Your task to perform on an android device: create a new album in the google photos Image 0: 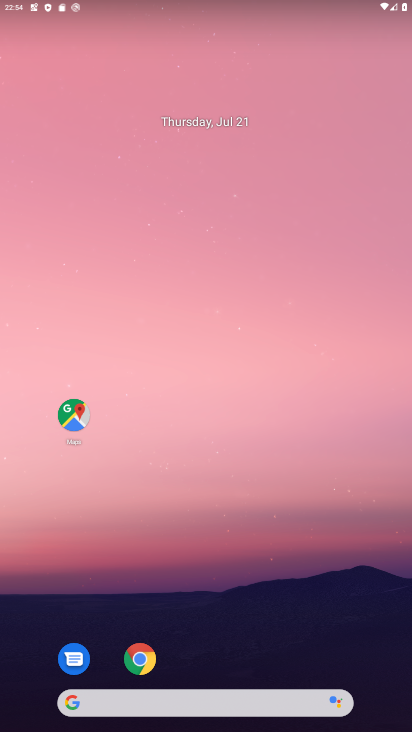
Step 0: drag from (249, 527) to (252, 11)
Your task to perform on an android device: create a new album in the google photos Image 1: 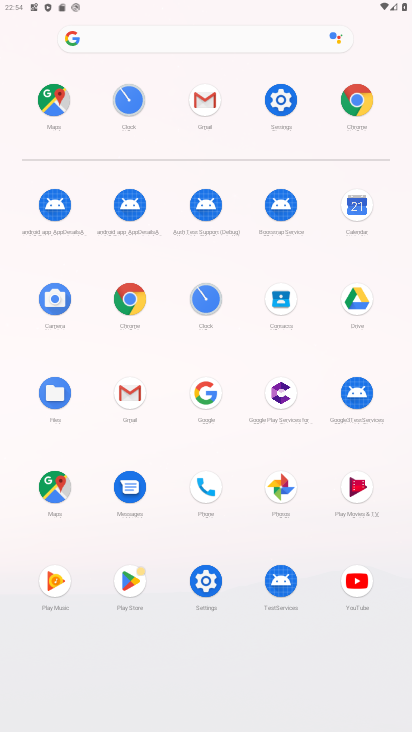
Step 1: click (286, 497)
Your task to perform on an android device: create a new album in the google photos Image 2: 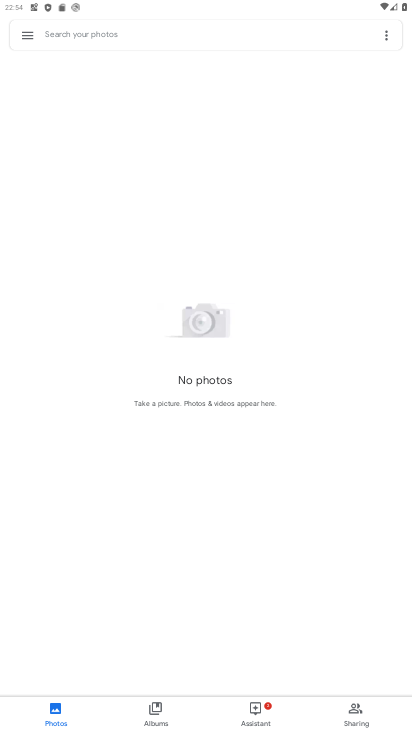
Step 2: click (160, 711)
Your task to perform on an android device: create a new album in the google photos Image 3: 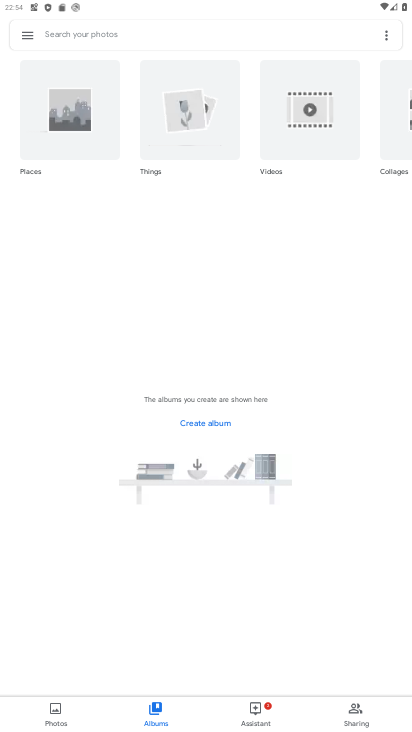
Step 3: click (192, 422)
Your task to perform on an android device: create a new album in the google photos Image 4: 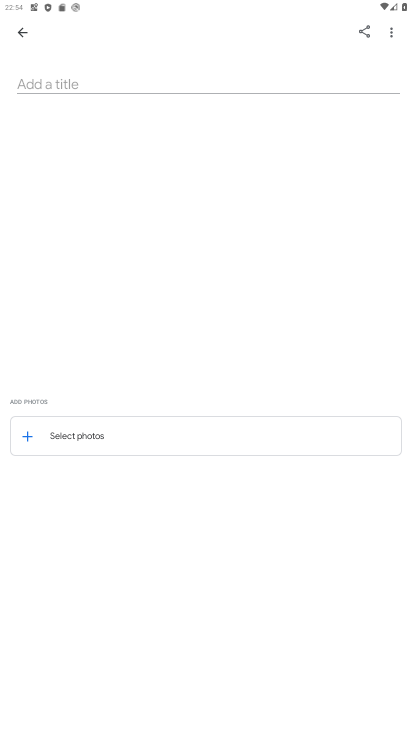
Step 4: click (207, 84)
Your task to perform on an android device: create a new album in the google photos Image 5: 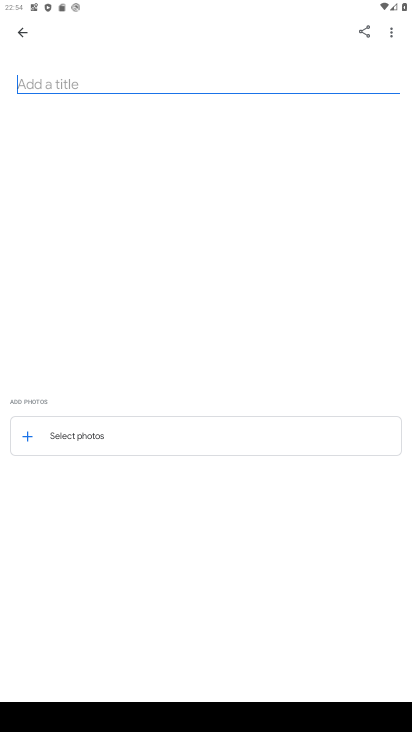
Step 5: type "jok,,"
Your task to perform on an android device: create a new album in the google photos Image 6: 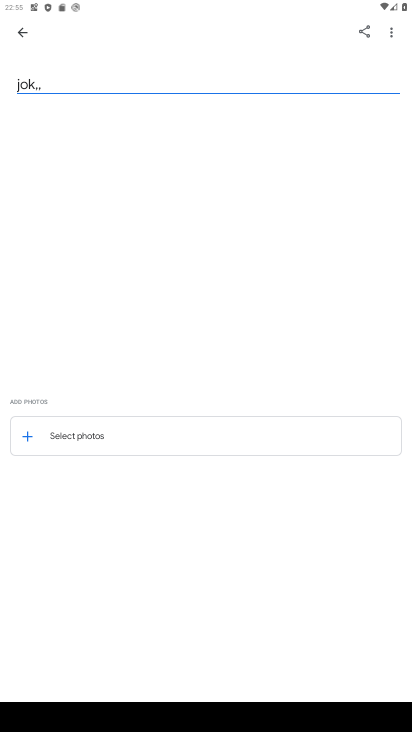
Step 6: click (389, 26)
Your task to perform on an android device: create a new album in the google photos Image 7: 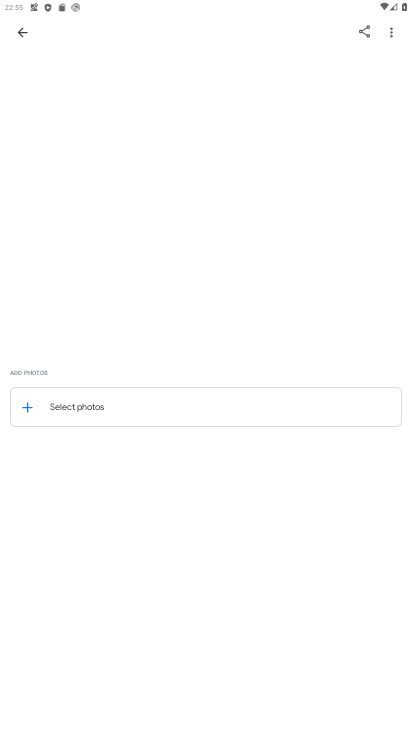
Step 7: click (373, 182)
Your task to perform on an android device: create a new album in the google photos Image 8: 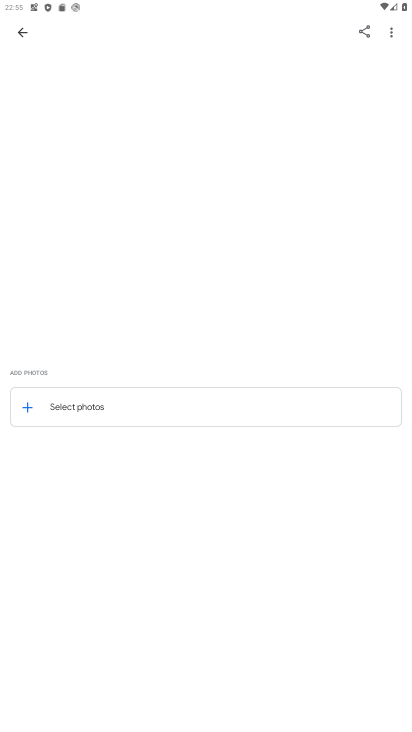
Step 8: click (393, 29)
Your task to perform on an android device: create a new album in the google photos Image 9: 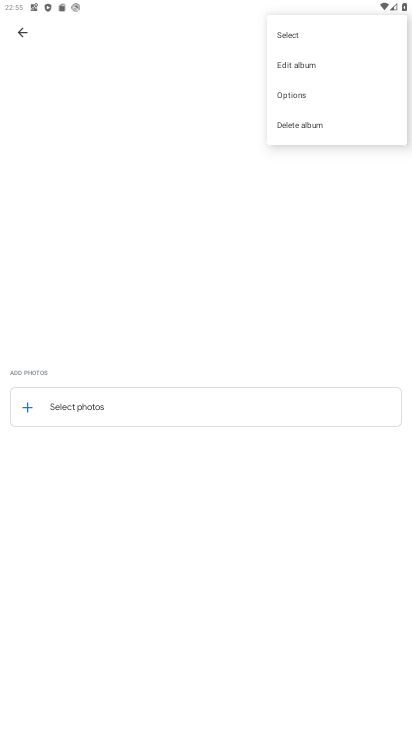
Step 9: click (306, 46)
Your task to perform on an android device: create a new album in the google photos Image 10: 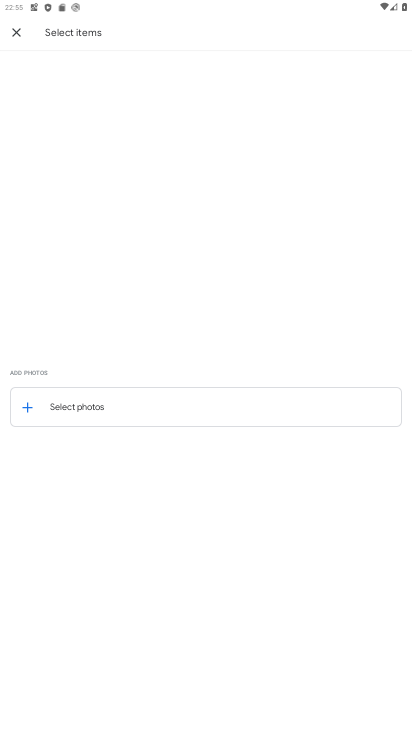
Step 10: task complete